Your task to perform on an android device: Search for "acer nitro" on walmart.com, select the first entry, add it to the cart, then select checkout. Image 0: 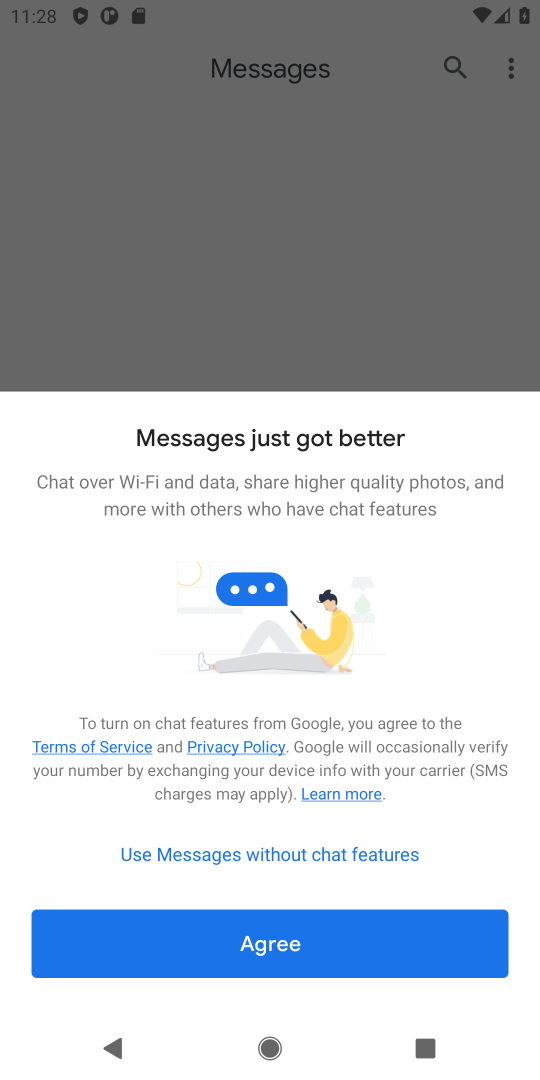
Step 0: press home button
Your task to perform on an android device: Search for "acer nitro" on walmart.com, select the first entry, add it to the cart, then select checkout. Image 1: 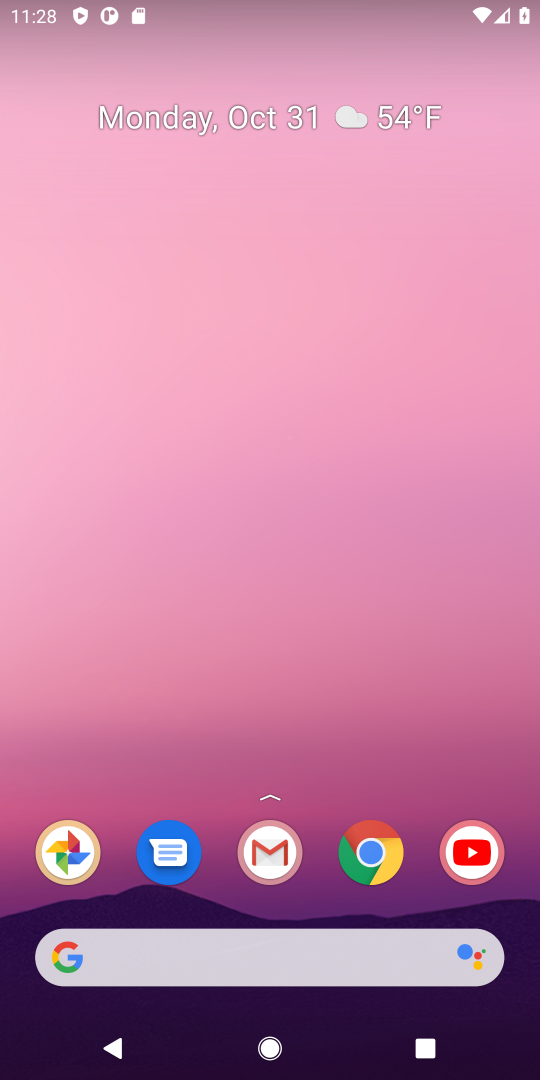
Step 1: click (381, 858)
Your task to perform on an android device: Search for "acer nitro" on walmart.com, select the first entry, add it to the cart, then select checkout. Image 2: 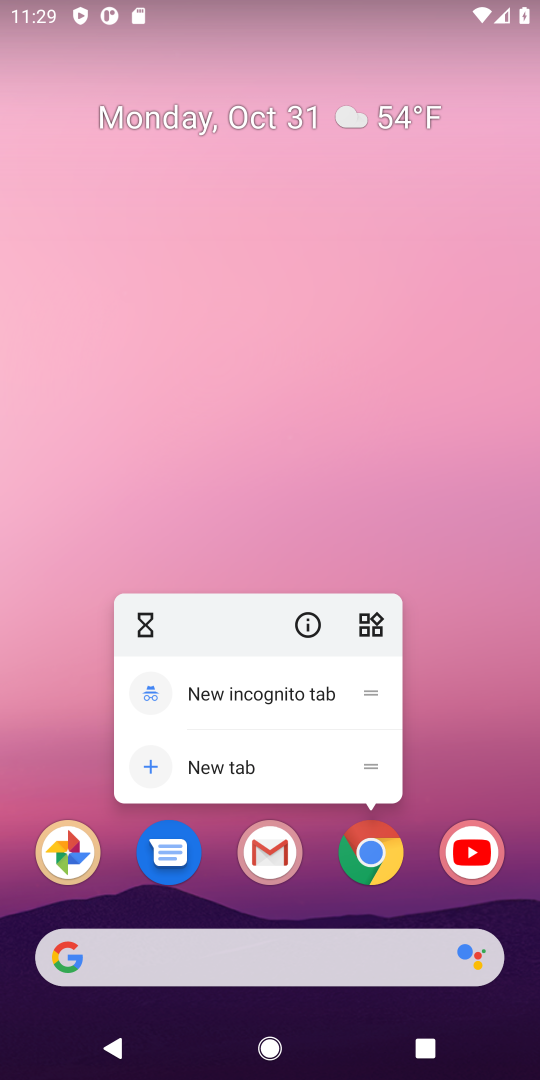
Step 2: click (378, 873)
Your task to perform on an android device: Search for "acer nitro" on walmart.com, select the first entry, add it to the cart, then select checkout. Image 3: 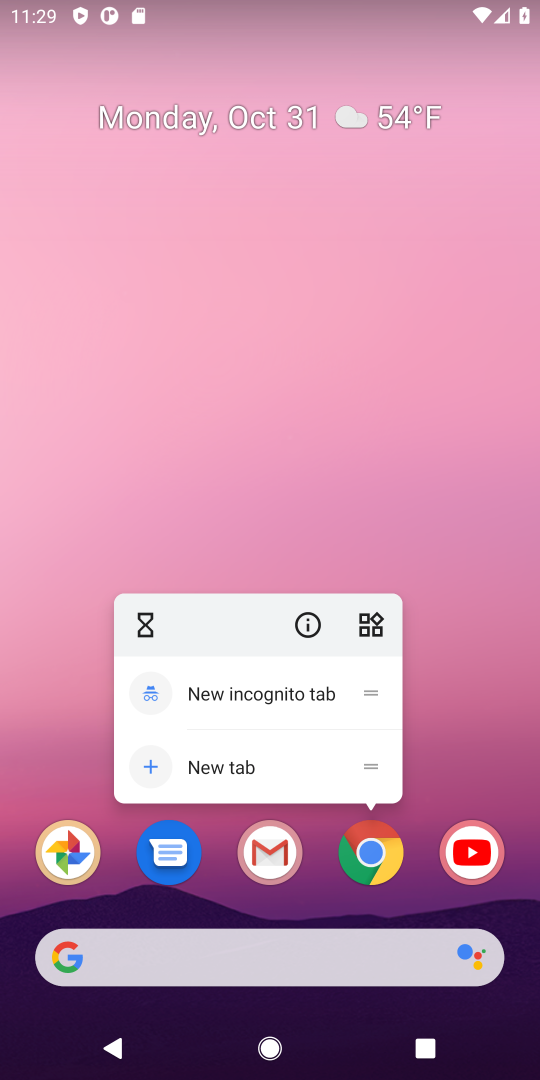
Step 3: click (377, 865)
Your task to perform on an android device: Search for "acer nitro" on walmart.com, select the first entry, add it to the cart, then select checkout. Image 4: 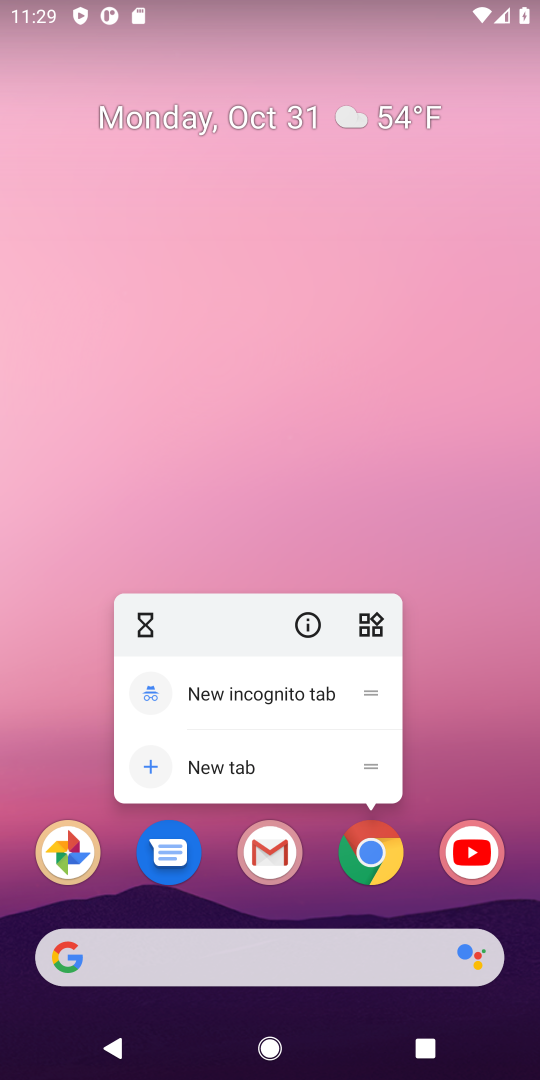
Step 4: click (368, 873)
Your task to perform on an android device: Search for "acer nitro" on walmart.com, select the first entry, add it to the cart, then select checkout. Image 5: 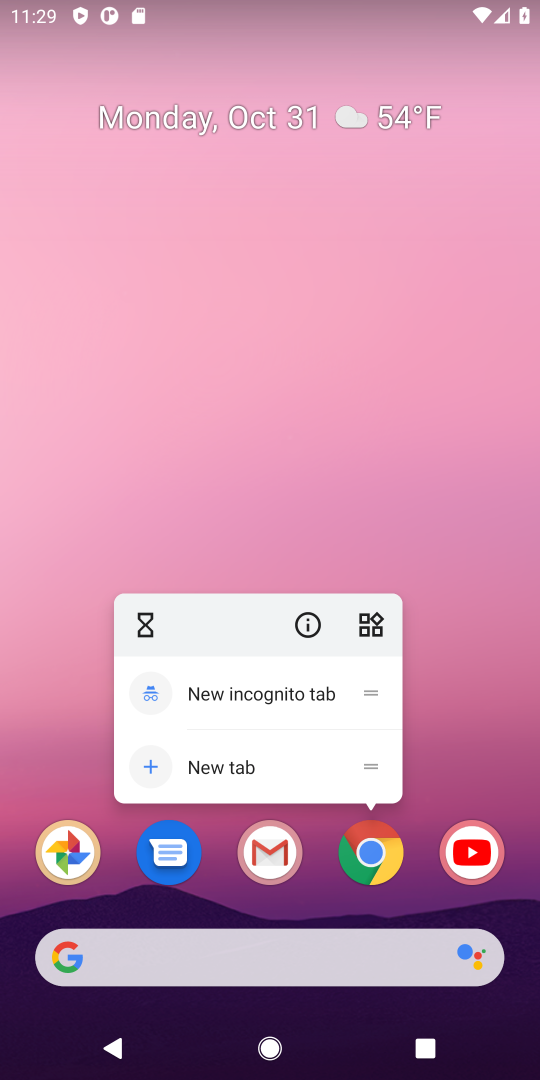
Step 5: click (378, 845)
Your task to perform on an android device: Search for "acer nitro" on walmart.com, select the first entry, add it to the cart, then select checkout. Image 6: 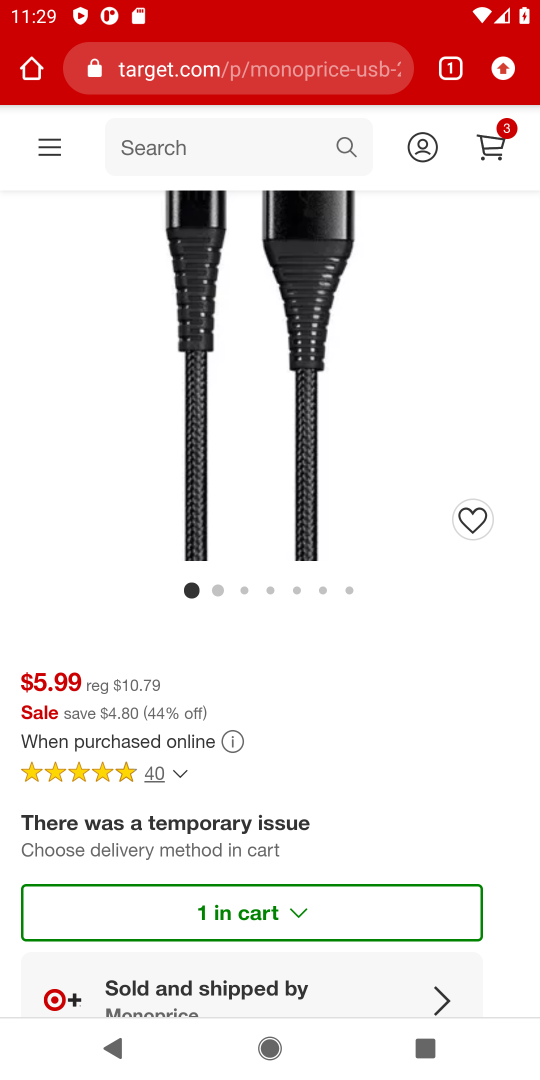
Step 6: click (301, 82)
Your task to perform on an android device: Search for "acer nitro" on walmart.com, select the first entry, add it to the cart, then select checkout. Image 7: 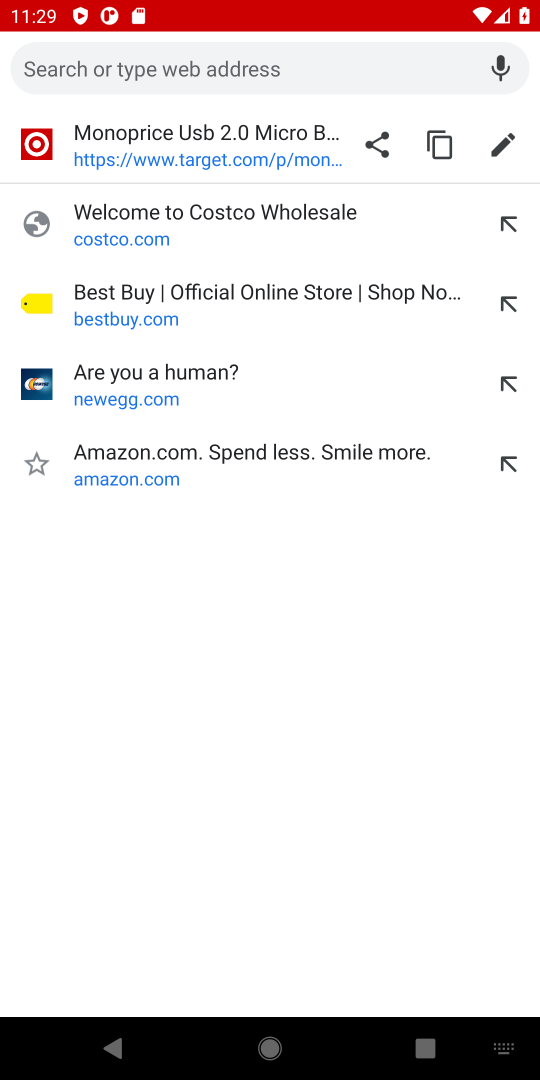
Step 7: type "walmart.com"
Your task to perform on an android device: Search for "acer nitro" on walmart.com, select the first entry, add it to the cart, then select checkout. Image 8: 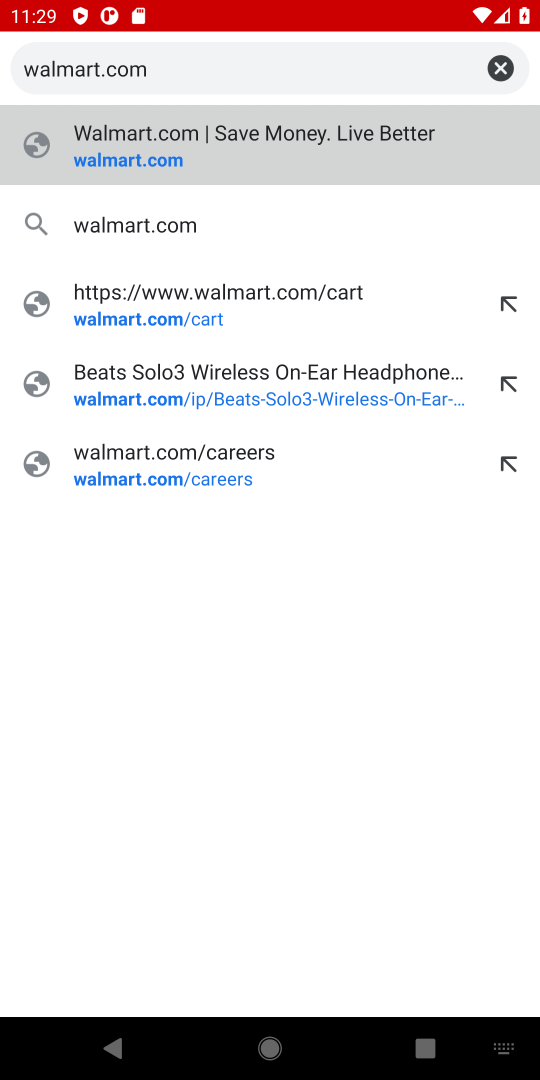
Step 8: type ""
Your task to perform on an android device: Search for "acer nitro" on walmart.com, select the first entry, add it to the cart, then select checkout. Image 9: 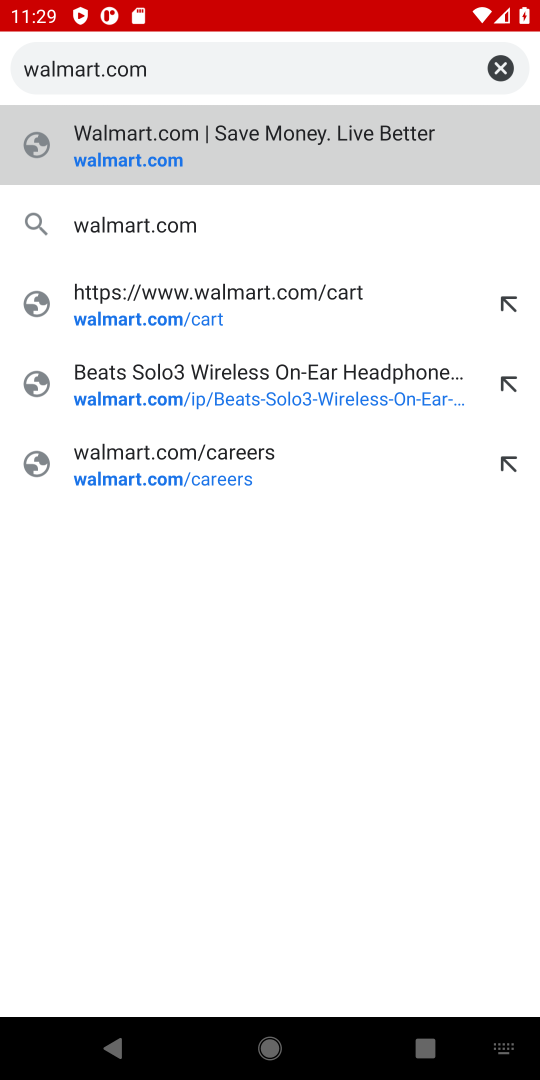
Step 9: press enter
Your task to perform on an android device: Search for "acer nitro" on walmart.com, select the first entry, add it to the cart, then select checkout. Image 10: 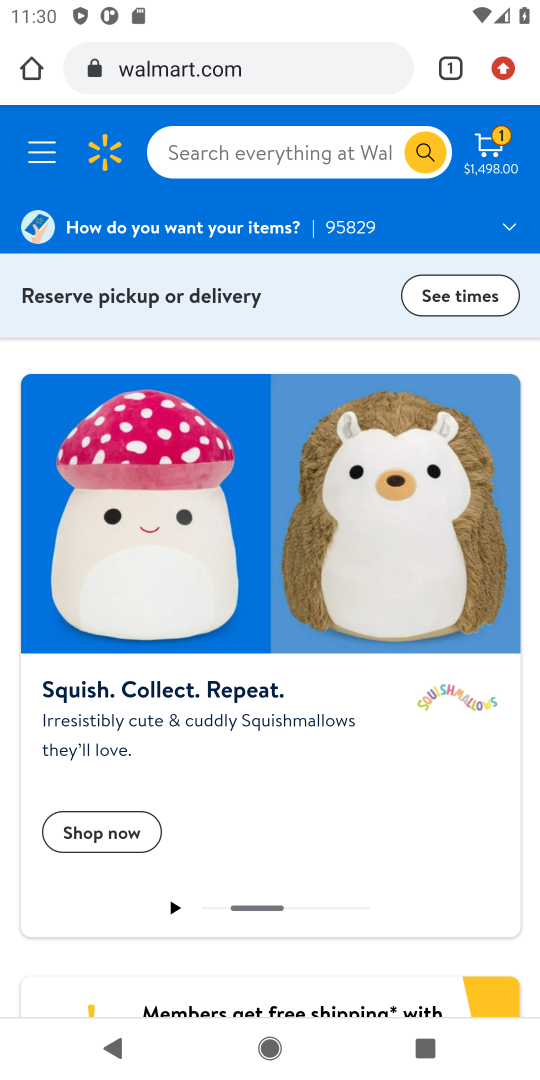
Step 10: click (304, 141)
Your task to perform on an android device: Search for "acer nitro" on walmart.com, select the first entry, add it to the cart, then select checkout. Image 11: 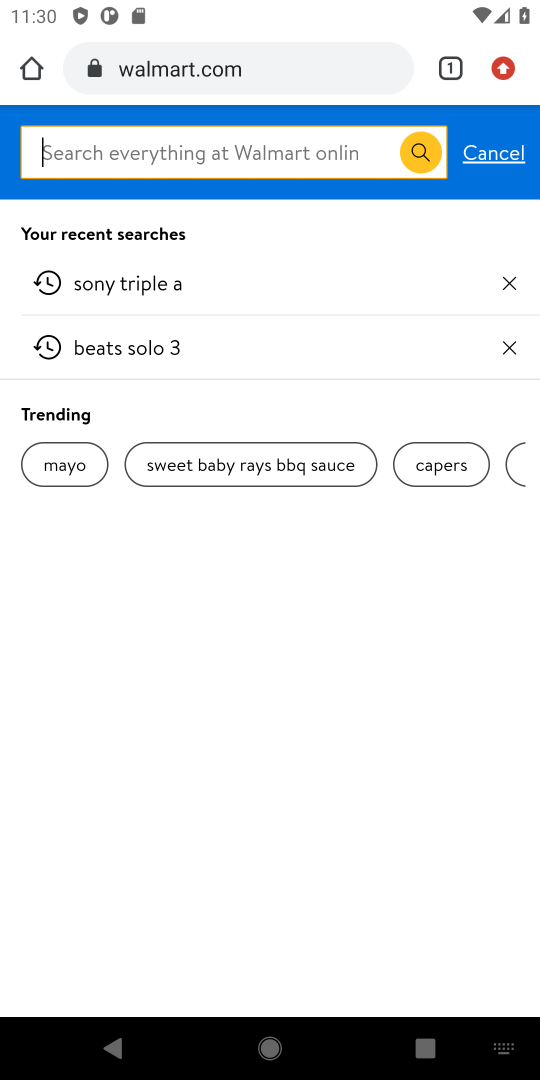
Step 11: type "acer nitro"
Your task to perform on an android device: Search for "acer nitro" on walmart.com, select the first entry, add it to the cart, then select checkout. Image 12: 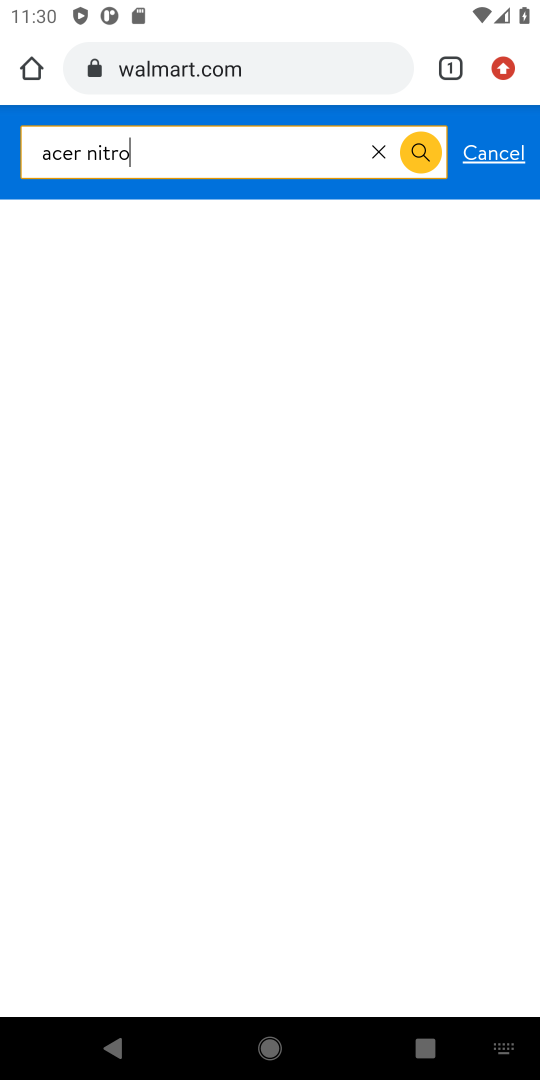
Step 12: type ""
Your task to perform on an android device: Search for "acer nitro" on walmart.com, select the first entry, add it to the cart, then select checkout. Image 13: 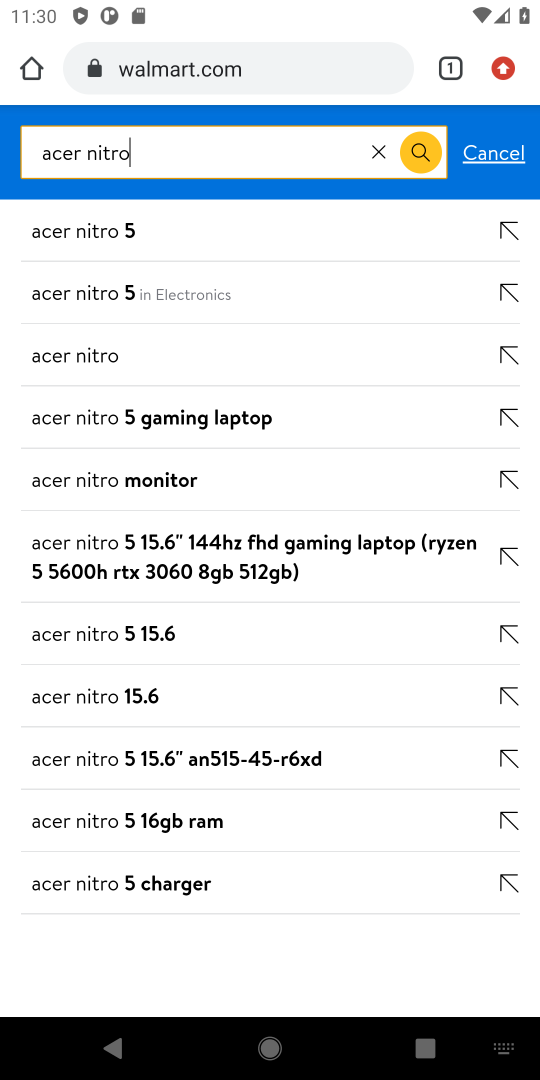
Step 13: press enter
Your task to perform on an android device: Search for "acer nitro" on walmart.com, select the first entry, add it to the cart, then select checkout. Image 14: 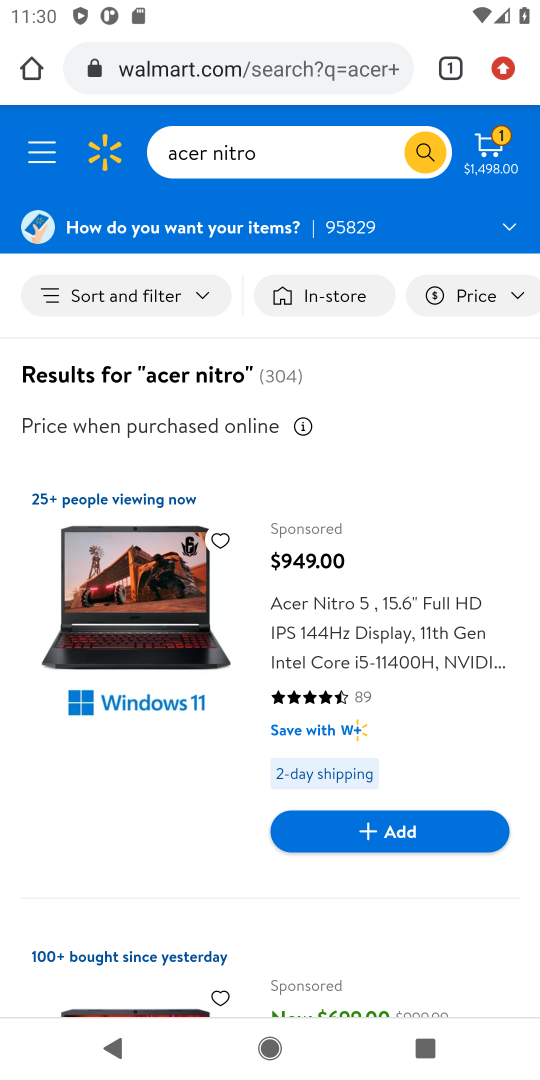
Step 14: click (360, 627)
Your task to perform on an android device: Search for "acer nitro" on walmart.com, select the first entry, add it to the cart, then select checkout. Image 15: 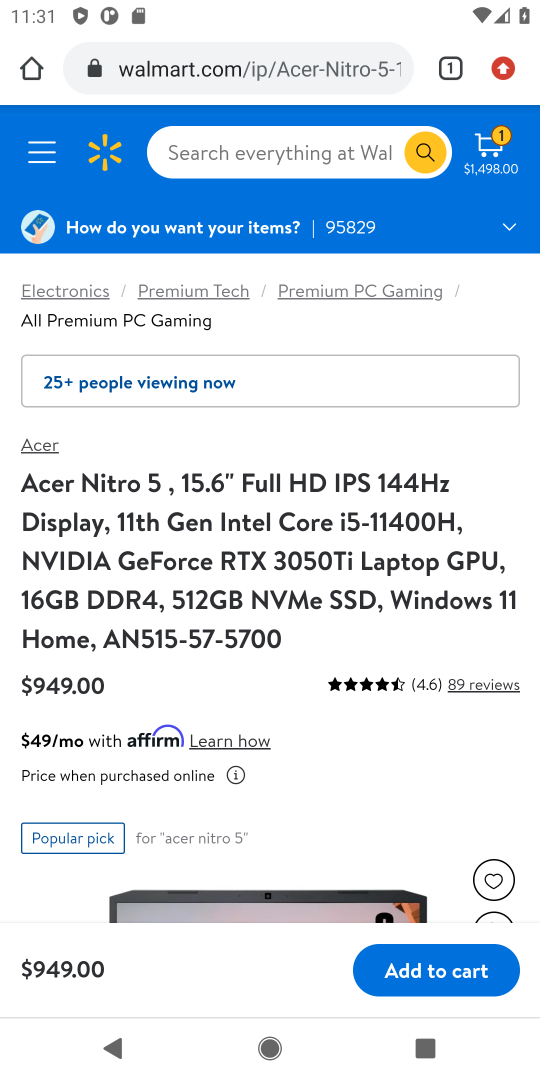
Step 15: drag from (379, 730) to (356, 271)
Your task to perform on an android device: Search for "acer nitro" on walmart.com, select the first entry, add it to the cart, then select checkout. Image 16: 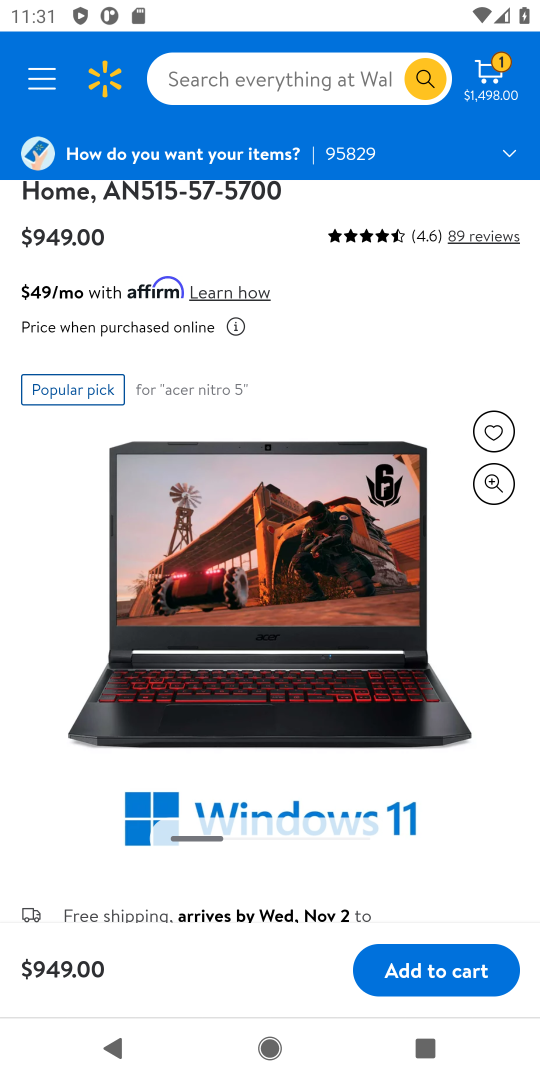
Step 16: click (474, 982)
Your task to perform on an android device: Search for "acer nitro" on walmart.com, select the first entry, add it to the cart, then select checkout. Image 17: 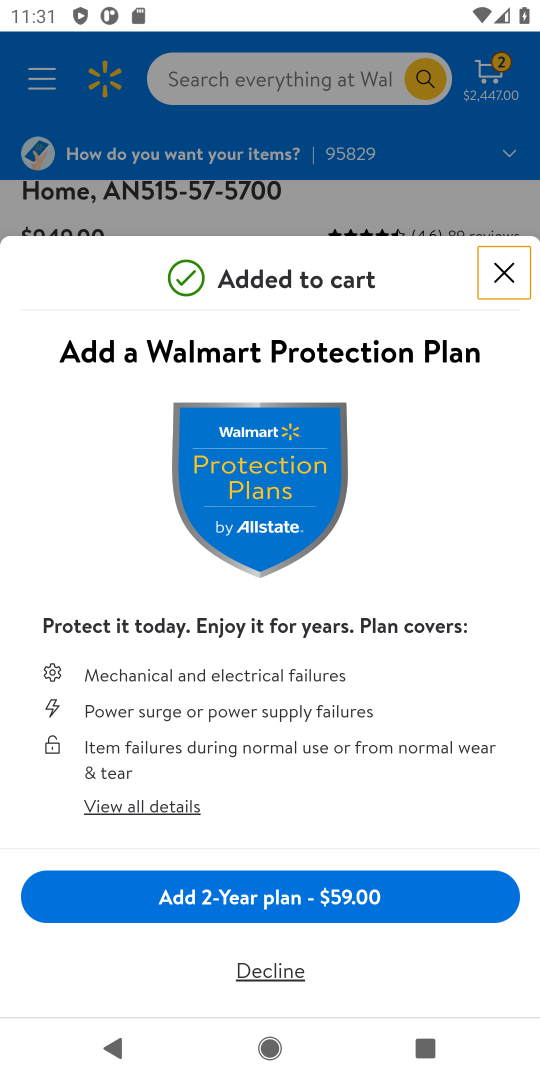
Step 17: click (499, 271)
Your task to perform on an android device: Search for "acer nitro" on walmart.com, select the first entry, add it to the cart, then select checkout. Image 18: 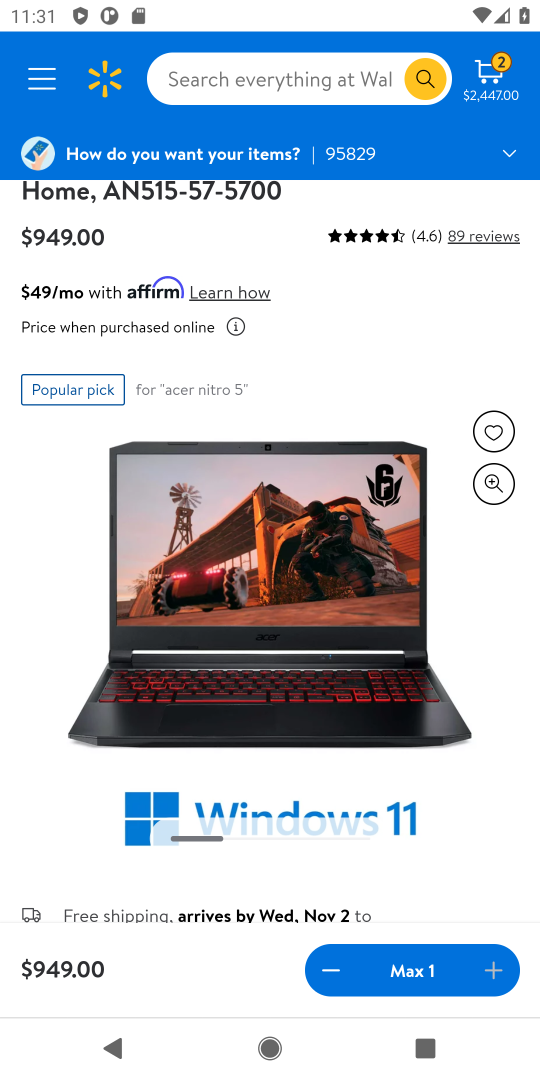
Step 18: drag from (406, 898) to (289, 276)
Your task to perform on an android device: Search for "acer nitro" on walmart.com, select the first entry, add it to the cart, then select checkout. Image 19: 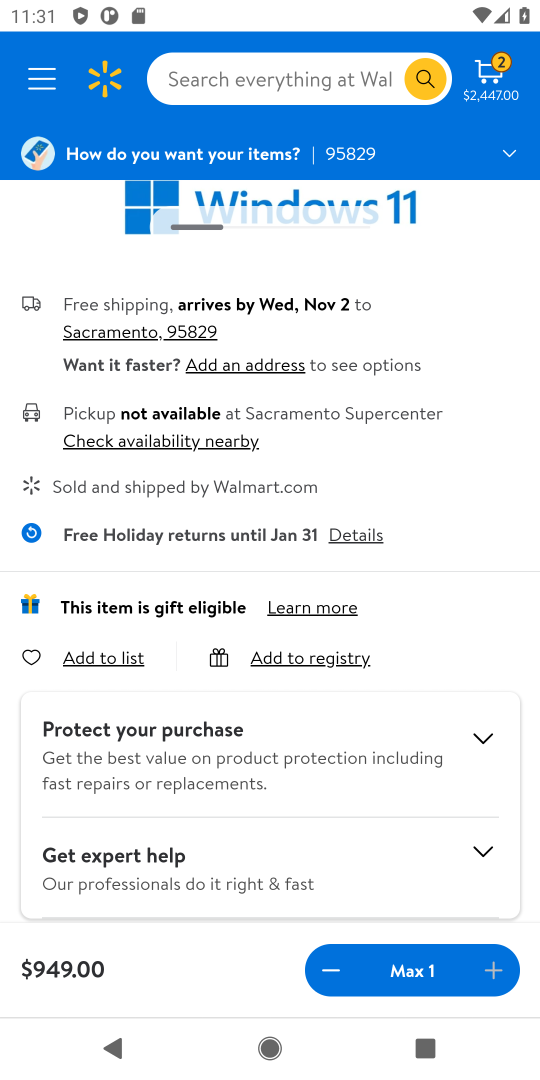
Step 19: drag from (379, 791) to (354, 270)
Your task to perform on an android device: Search for "acer nitro" on walmart.com, select the first entry, add it to the cart, then select checkout. Image 20: 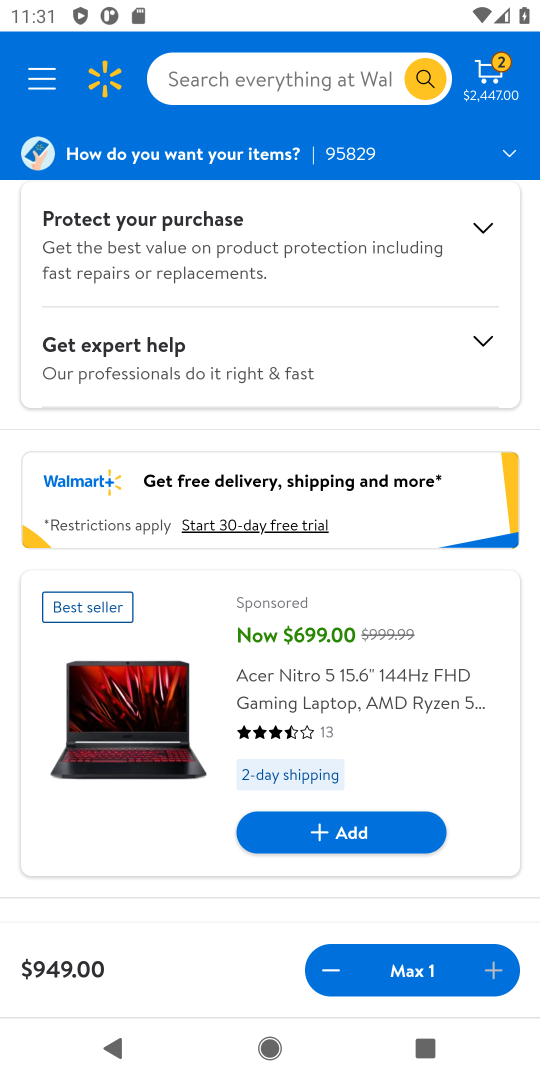
Step 20: drag from (373, 752) to (405, 384)
Your task to perform on an android device: Search for "acer nitro" on walmart.com, select the first entry, add it to the cart, then select checkout. Image 21: 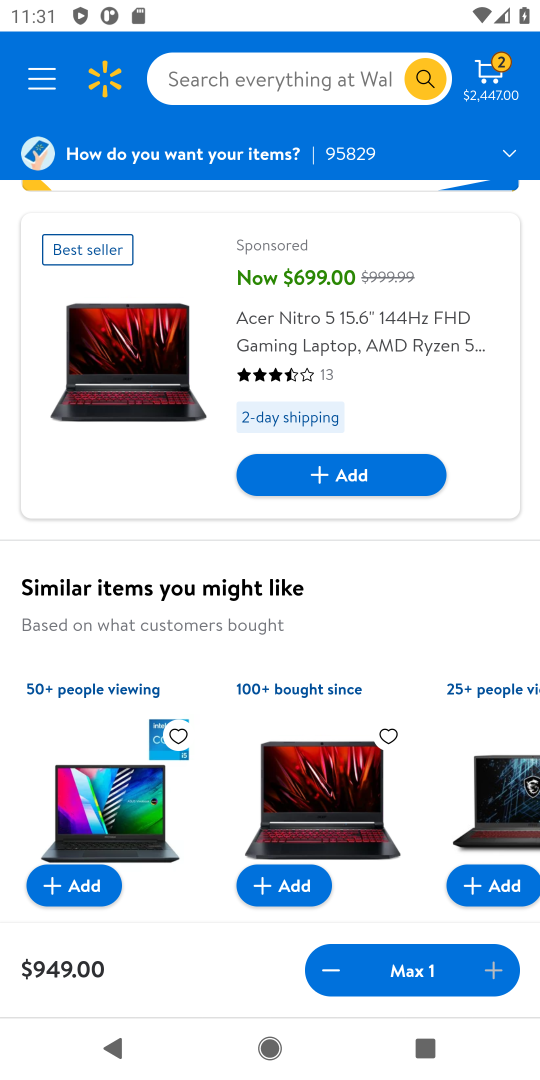
Step 21: click (494, 67)
Your task to perform on an android device: Search for "acer nitro" on walmart.com, select the first entry, add it to the cart, then select checkout. Image 22: 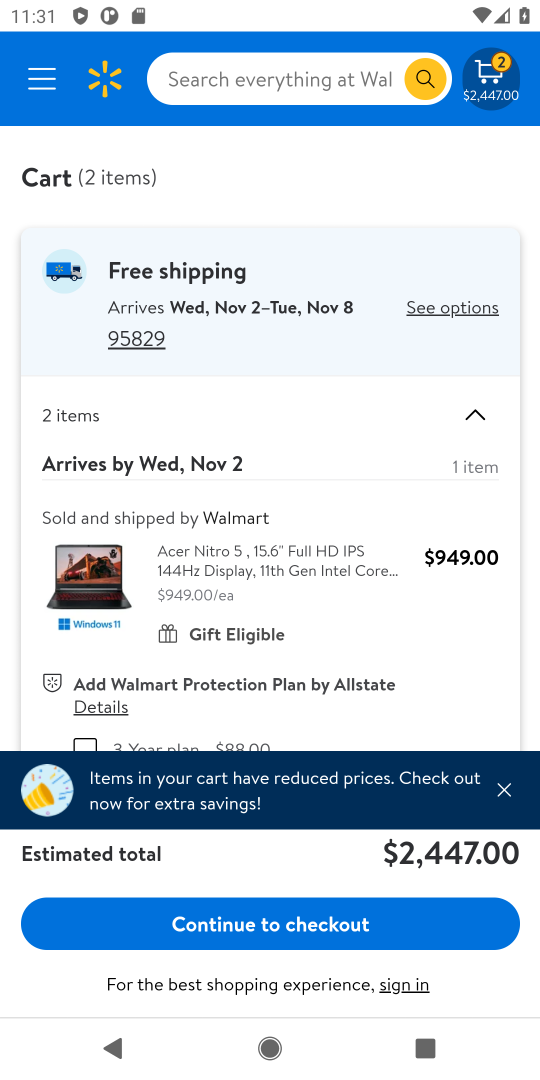
Step 22: click (375, 935)
Your task to perform on an android device: Search for "acer nitro" on walmart.com, select the first entry, add it to the cart, then select checkout. Image 23: 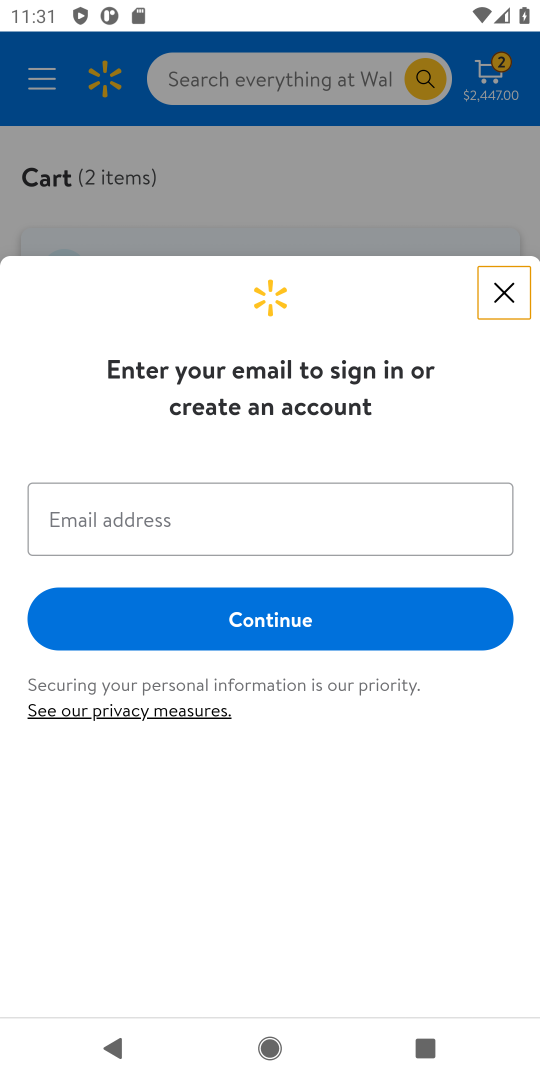
Step 23: task complete